Your task to perform on an android device: turn on sleep mode Image 0: 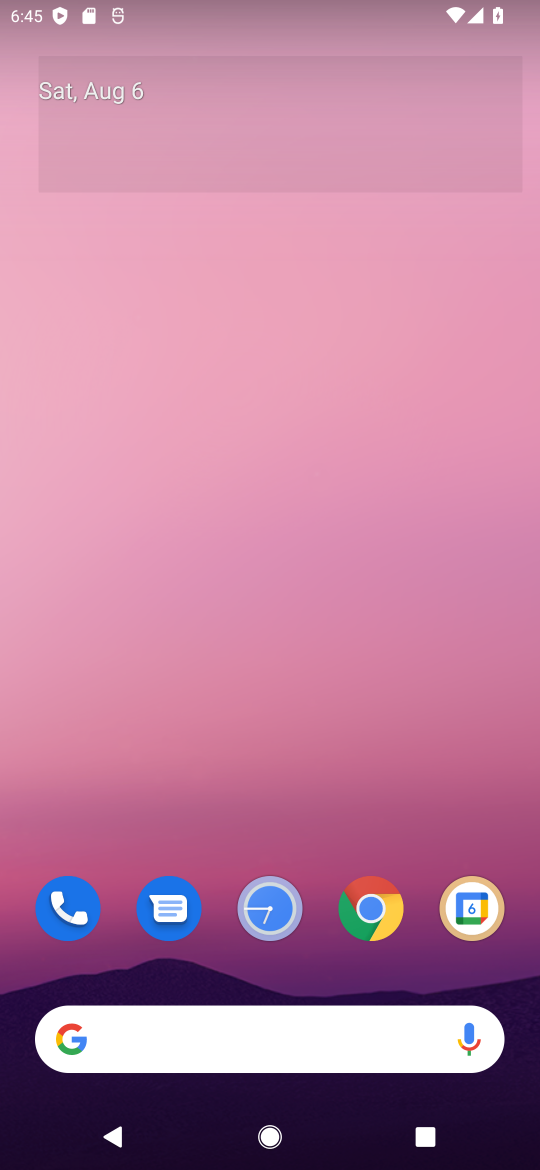
Step 0: drag from (416, 9) to (449, 851)
Your task to perform on an android device: turn on sleep mode Image 1: 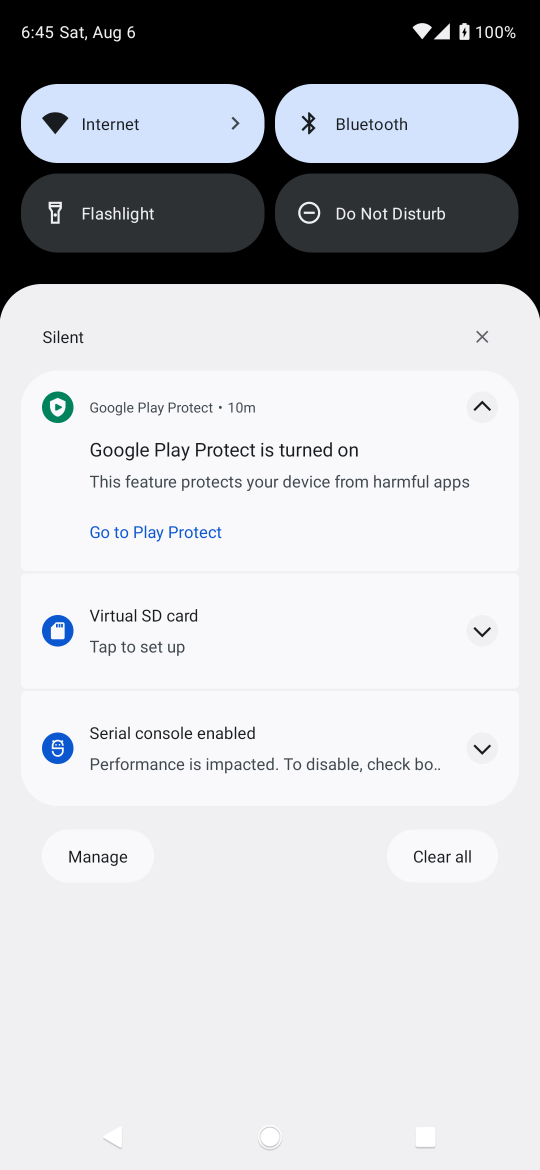
Step 1: drag from (280, 235) to (376, 1015)
Your task to perform on an android device: turn on sleep mode Image 2: 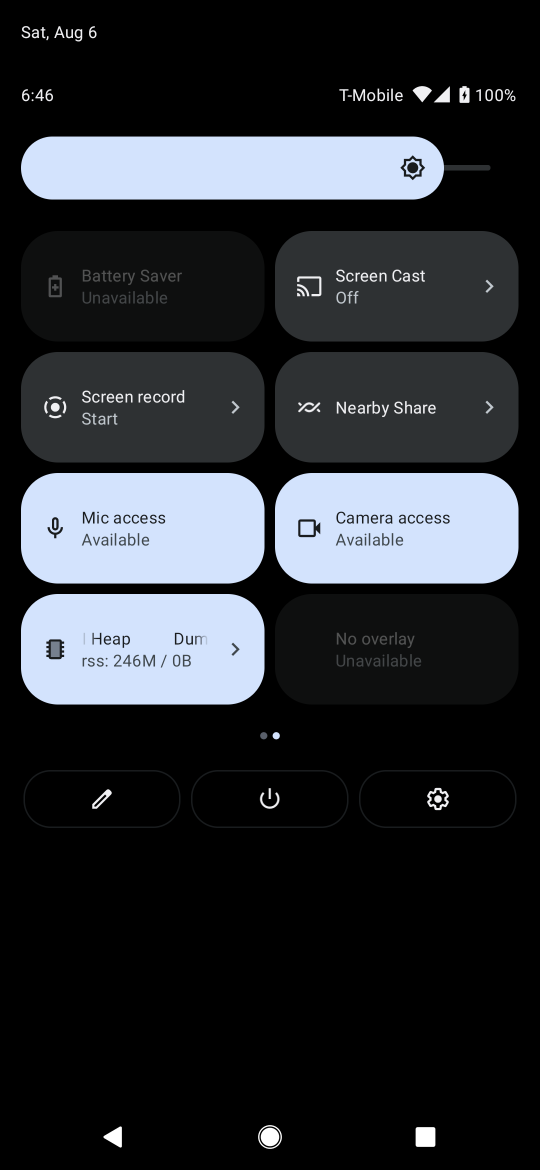
Step 2: click (104, 798)
Your task to perform on an android device: turn on sleep mode Image 3: 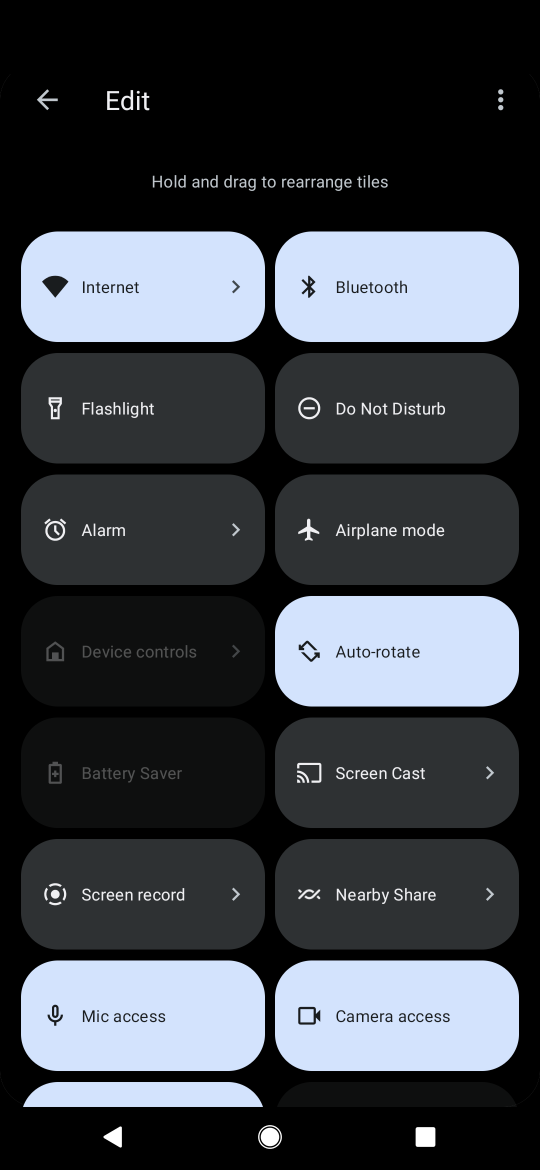
Step 3: task complete